Your task to perform on an android device: Open display settings Image 0: 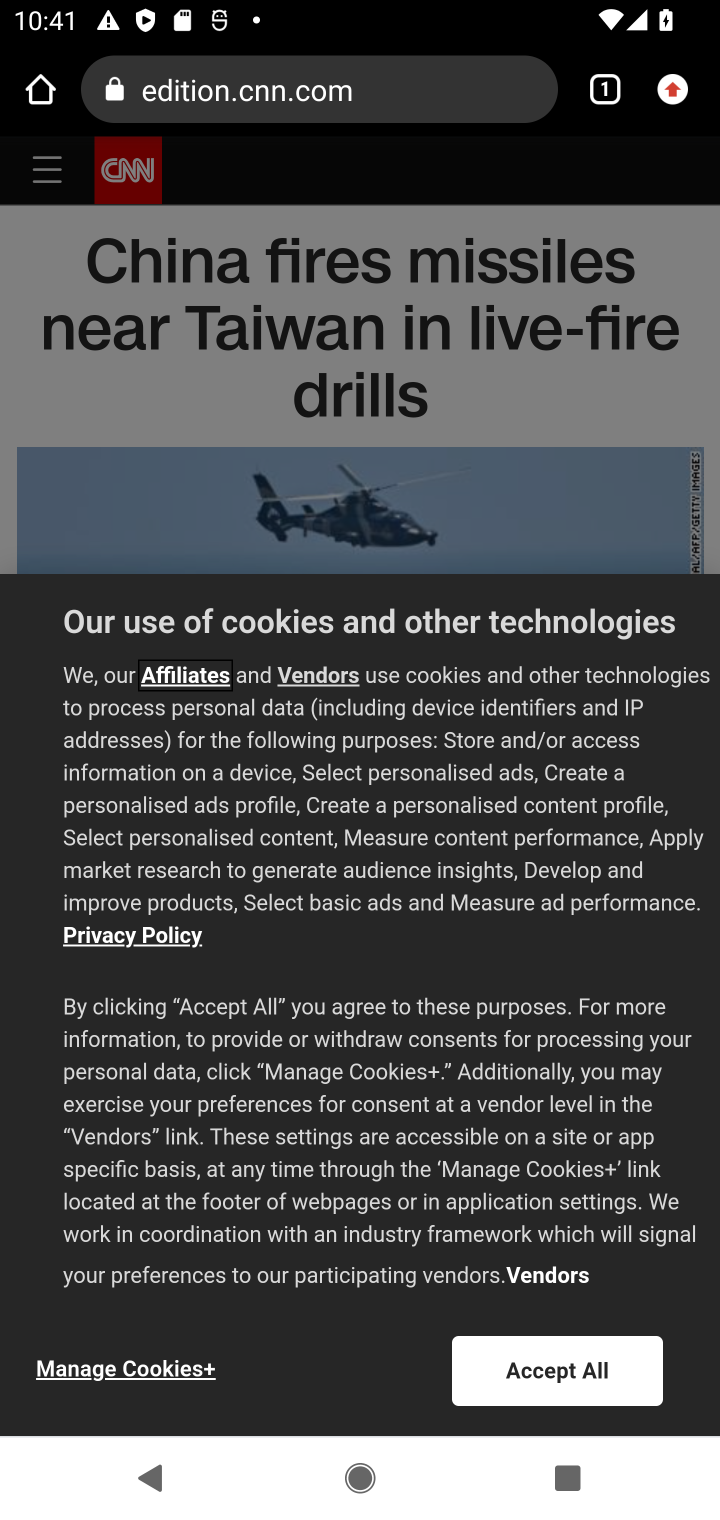
Step 0: press home button
Your task to perform on an android device: Open display settings Image 1: 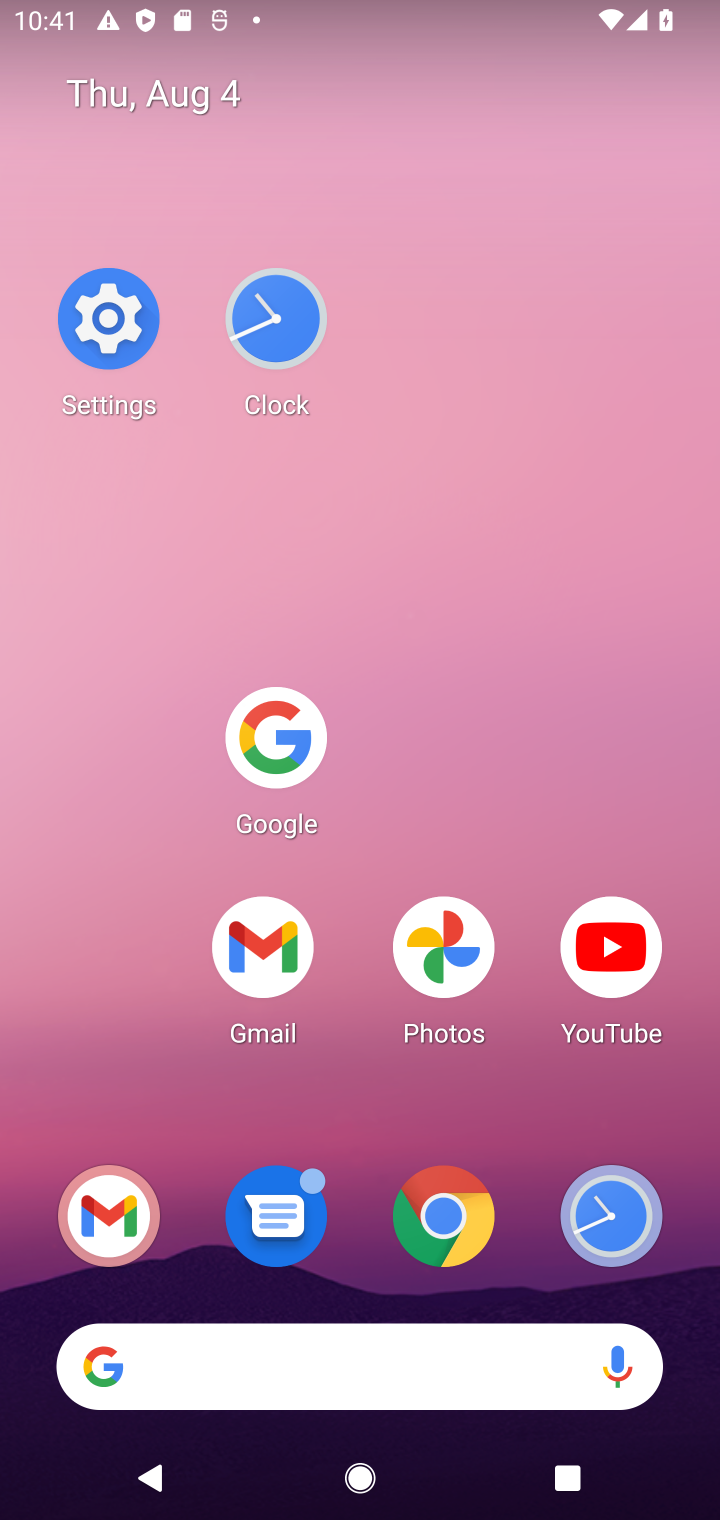
Step 1: click (86, 321)
Your task to perform on an android device: Open display settings Image 2: 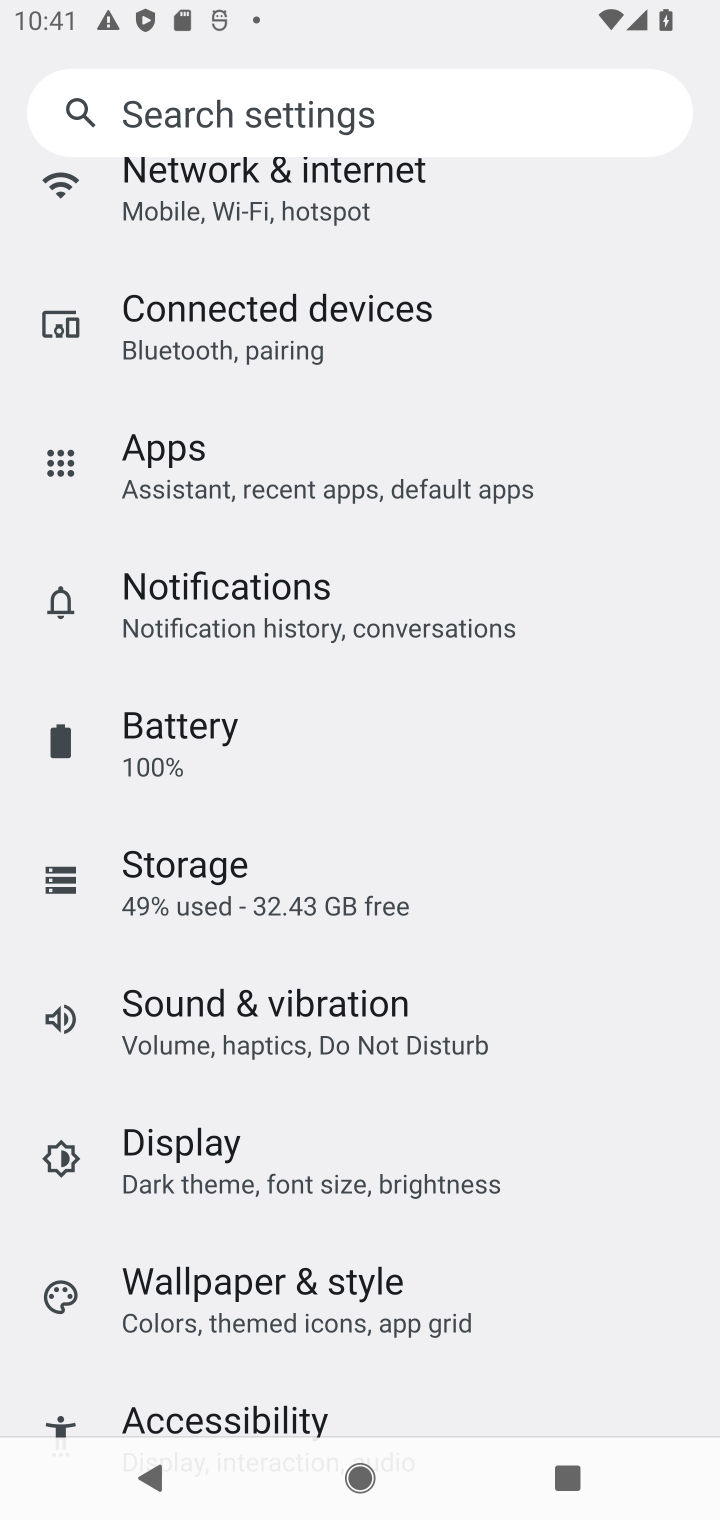
Step 2: click (230, 1164)
Your task to perform on an android device: Open display settings Image 3: 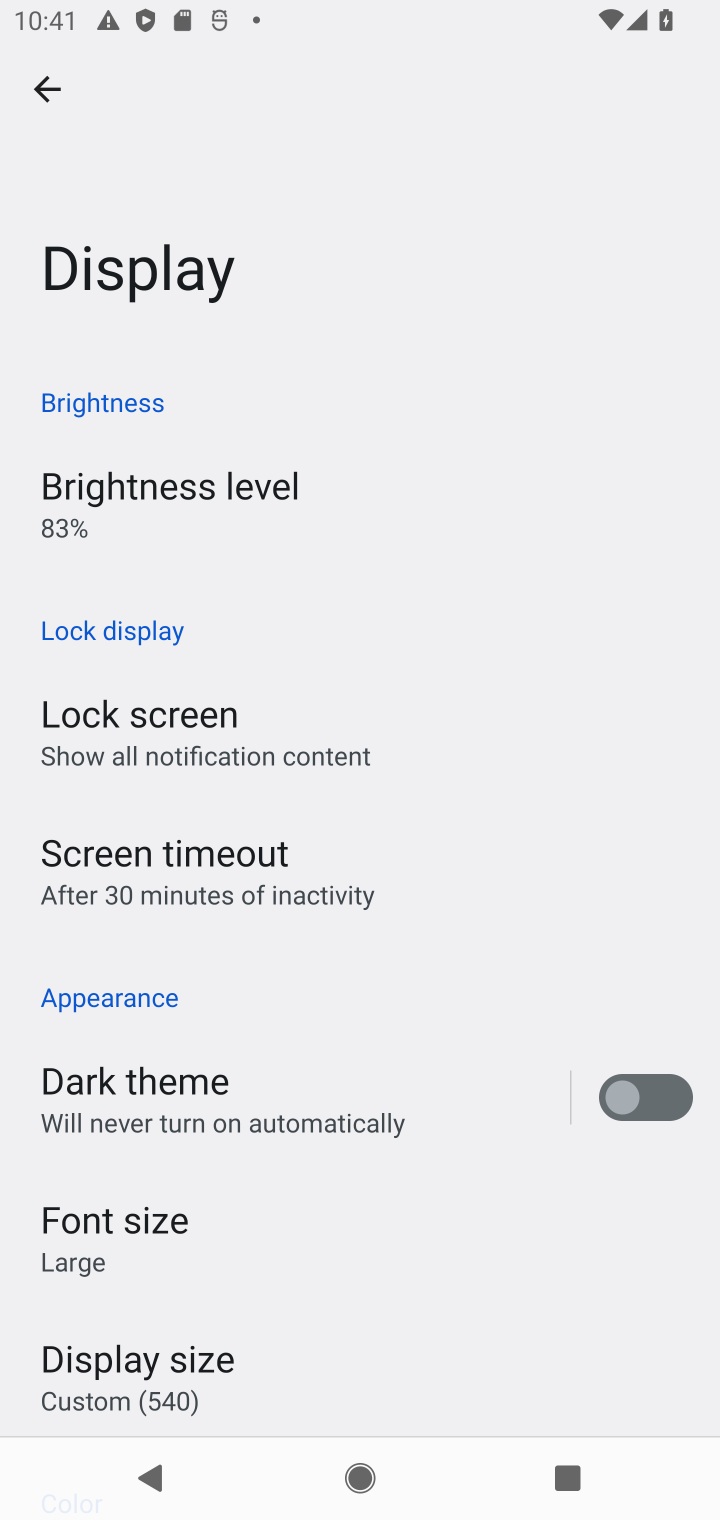
Step 3: task complete